Your task to perform on an android device: Open Google Chrome and click the shortcut for Amazon.com Image 0: 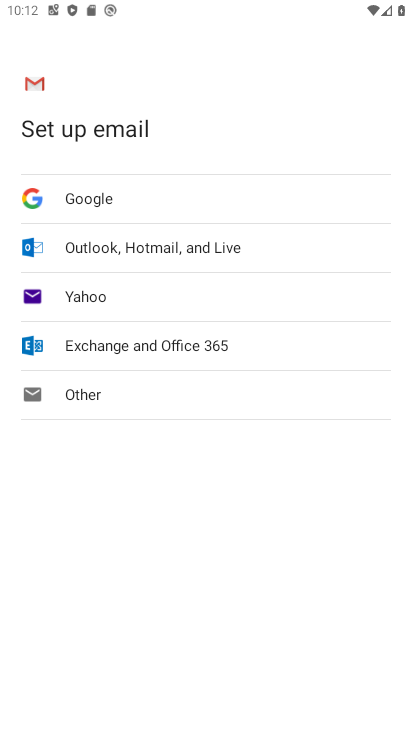
Step 0: press home button
Your task to perform on an android device: Open Google Chrome and click the shortcut for Amazon.com Image 1: 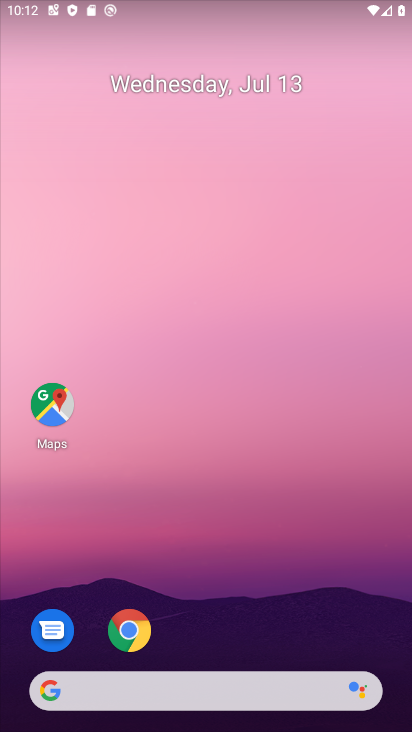
Step 1: drag from (264, 509) to (324, 62)
Your task to perform on an android device: Open Google Chrome and click the shortcut for Amazon.com Image 2: 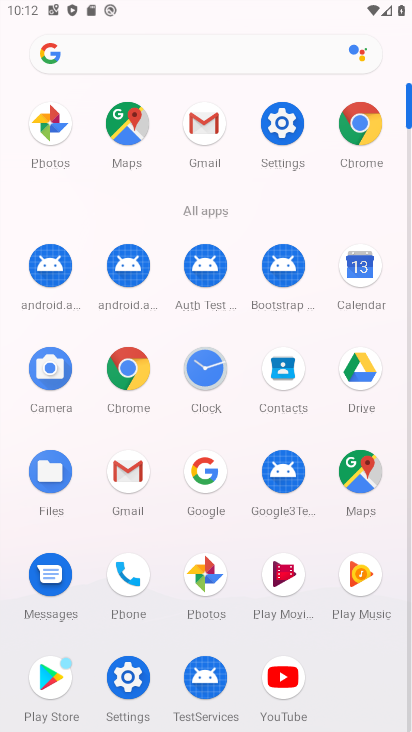
Step 2: click (353, 134)
Your task to perform on an android device: Open Google Chrome and click the shortcut for Amazon.com Image 3: 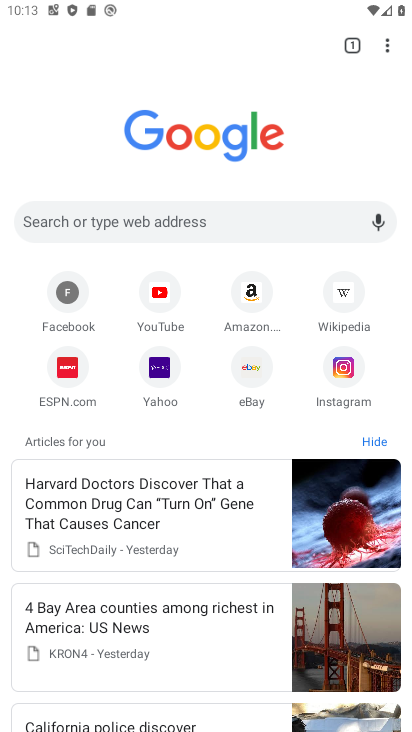
Step 3: click (246, 292)
Your task to perform on an android device: Open Google Chrome and click the shortcut for Amazon.com Image 4: 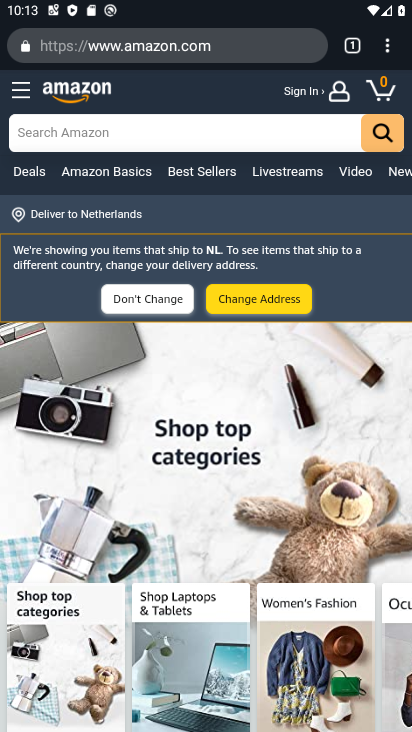
Step 4: task complete